Your task to perform on an android device: set the timer Image 0: 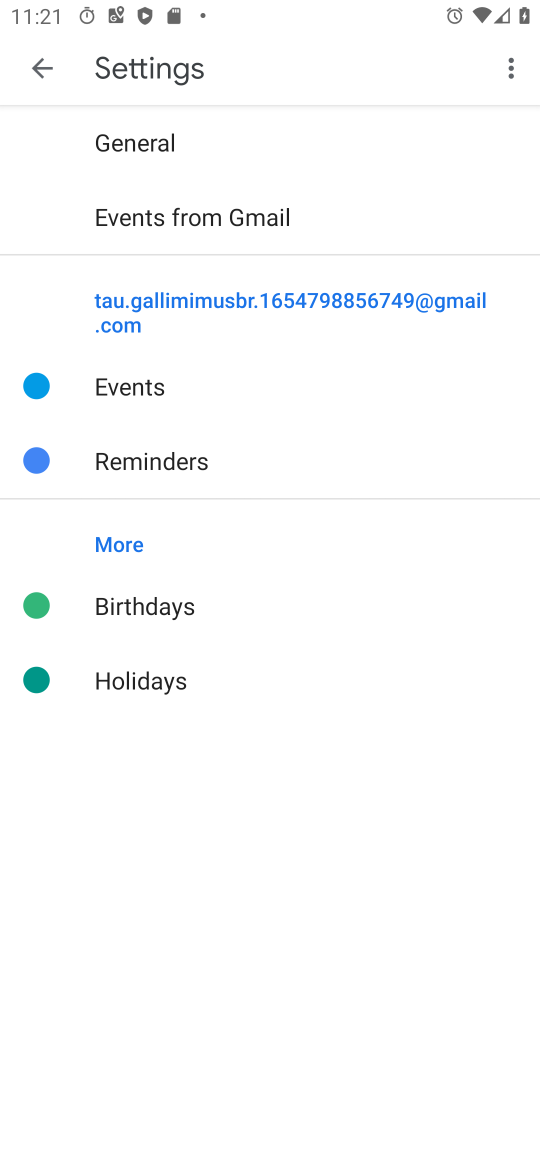
Step 0: press home button
Your task to perform on an android device: set the timer Image 1: 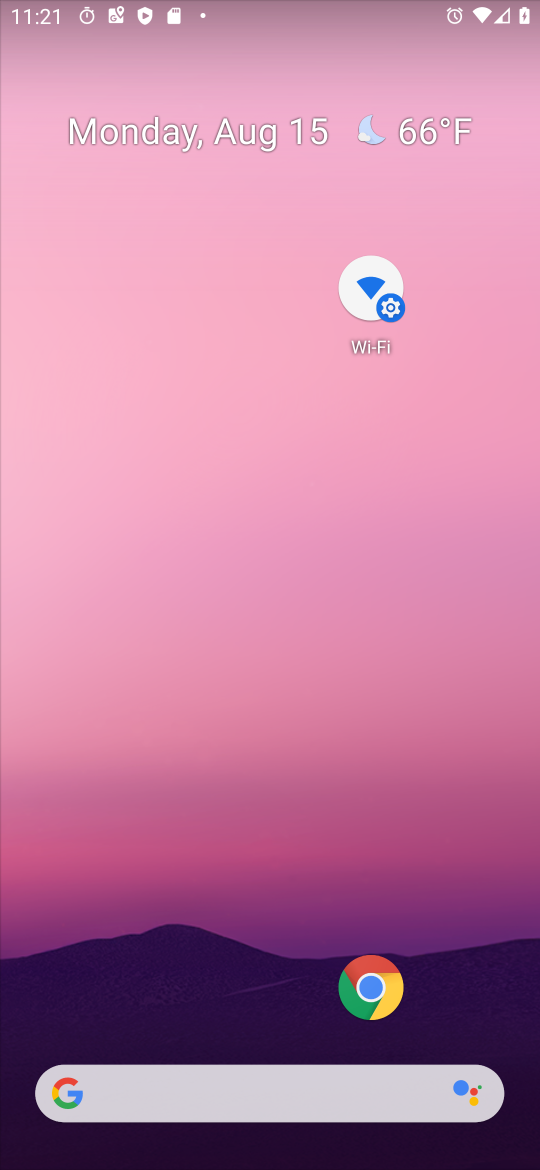
Step 1: drag from (287, 1036) to (111, 35)
Your task to perform on an android device: set the timer Image 2: 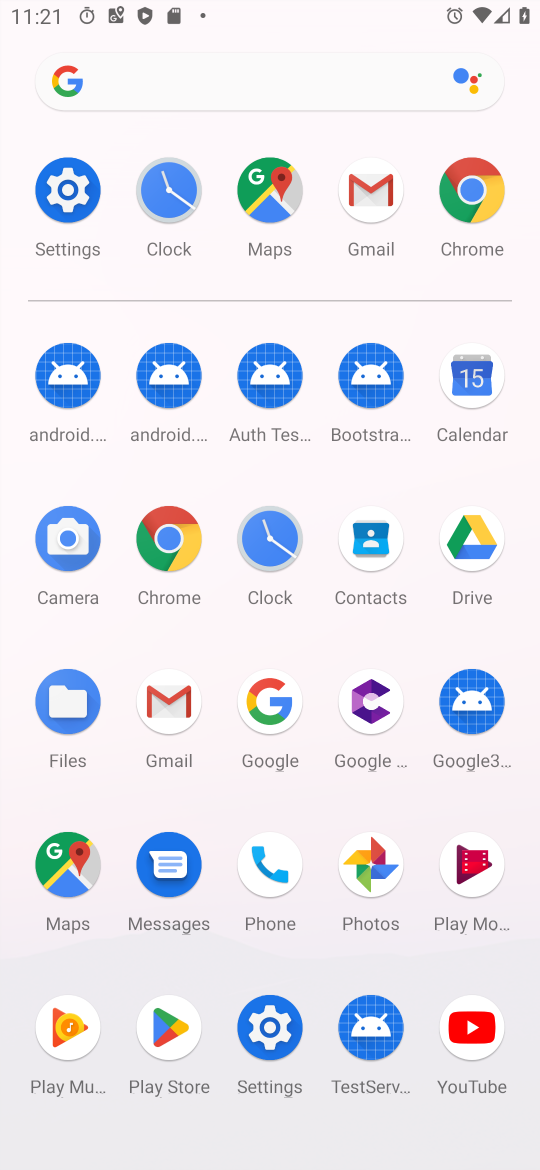
Step 2: click (269, 539)
Your task to perform on an android device: set the timer Image 3: 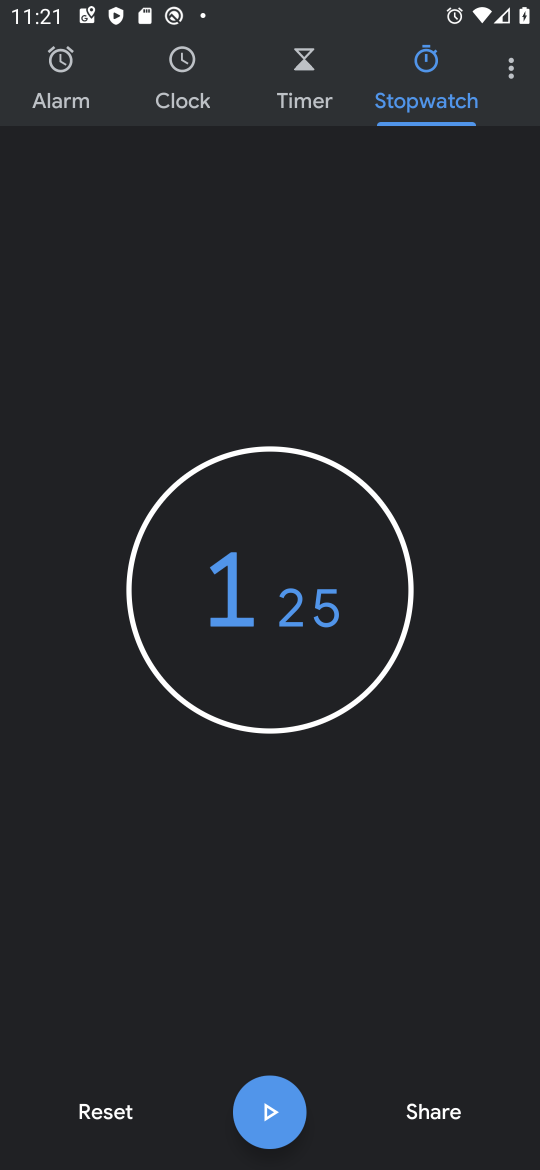
Step 3: click (41, 124)
Your task to perform on an android device: set the timer Image 4: 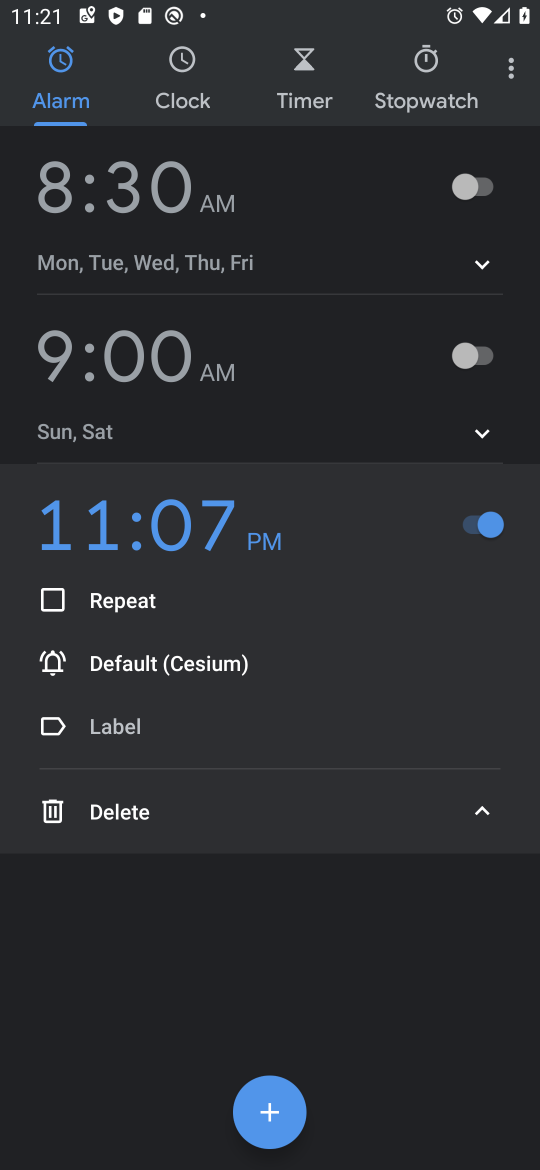
Step 4: click (269, 1100)
Your task to perform on an android device: set the timer Image 5: 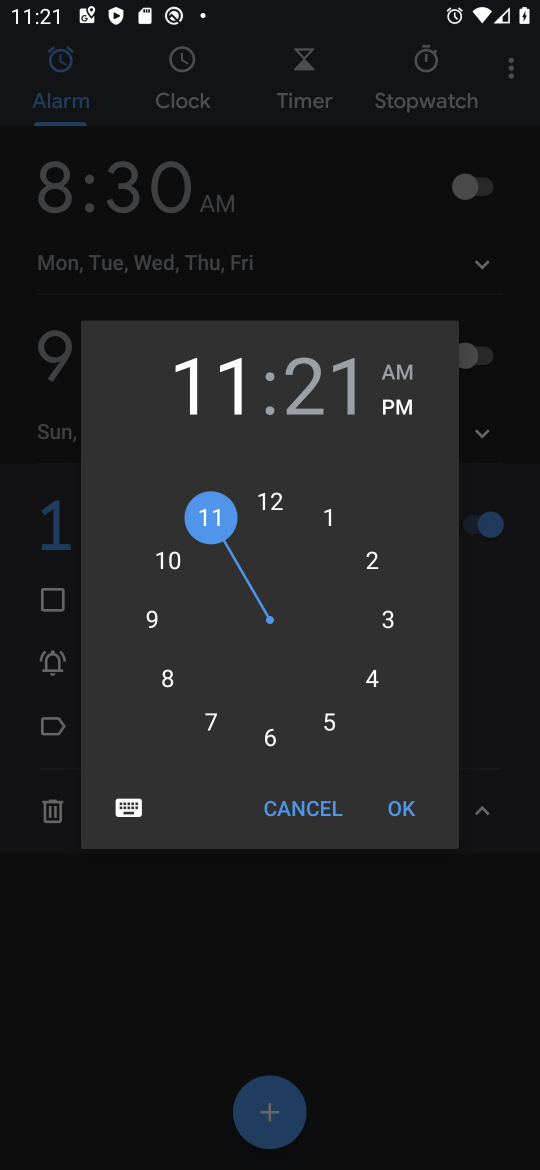
Step 5: click (407, 812)
Your task to perform on an android device: set the timer Image 6: 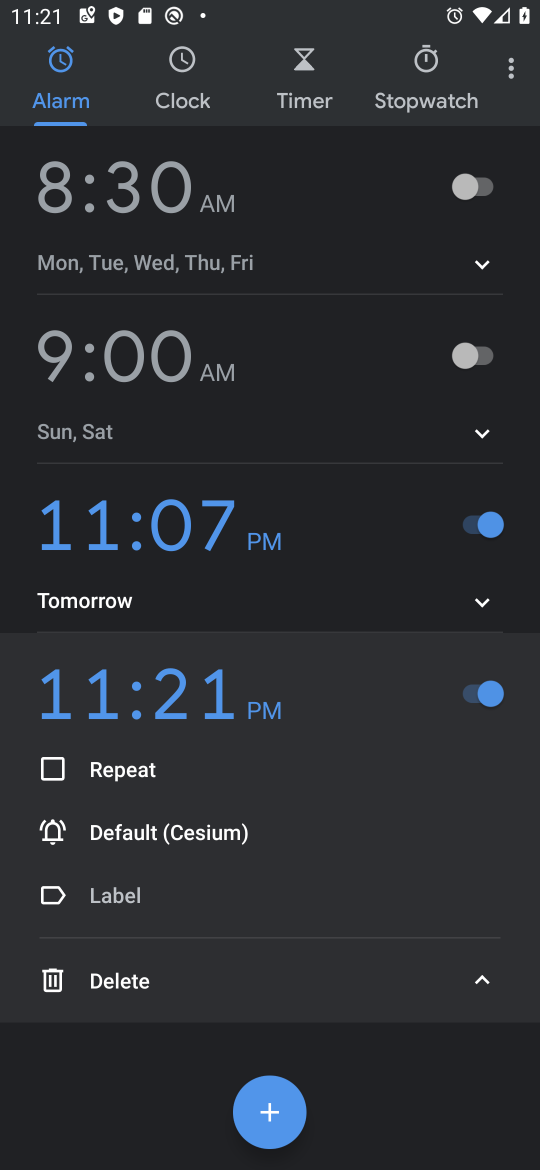
Step 6: task complete